Your task to perform on an android device: change the upload size in google photos Image 0: 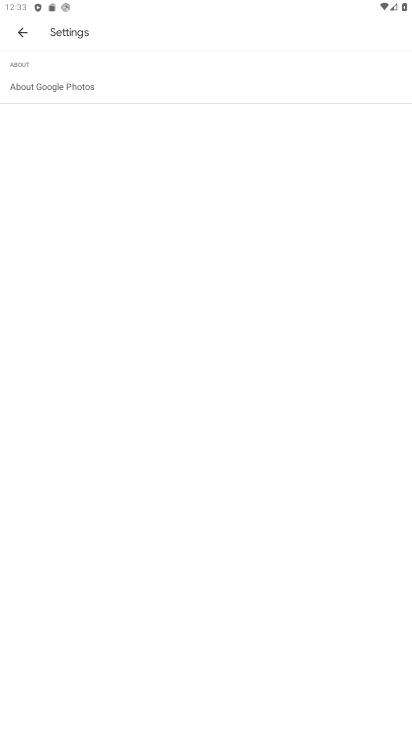
Step 0: press home button
Your task to perform on an android device: change the upload size in google photos Image 1: 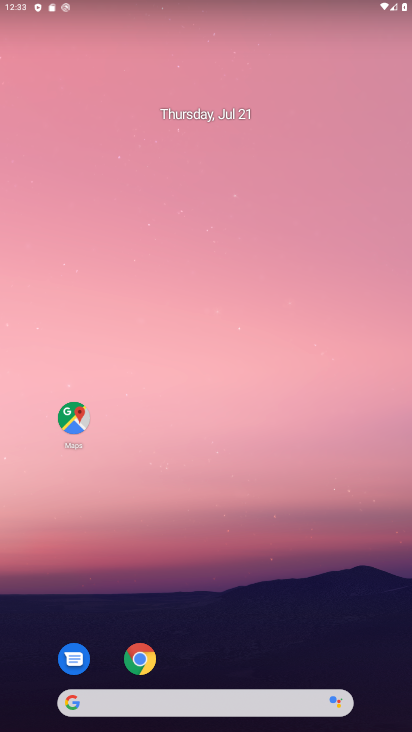
Step 1: drag from (187, 701) to (283, 82)
Your task to perform on an android device: change the upload size in google photos Image 2: 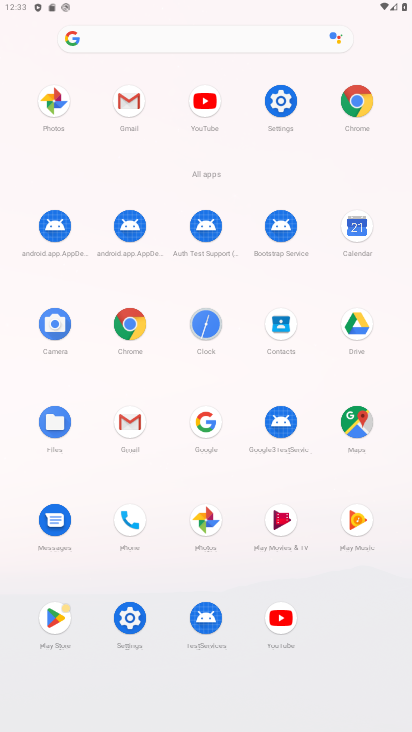
Step 2: click (54, 101)
Your task to perform on an android device: change the upload size in google photos Image 3: 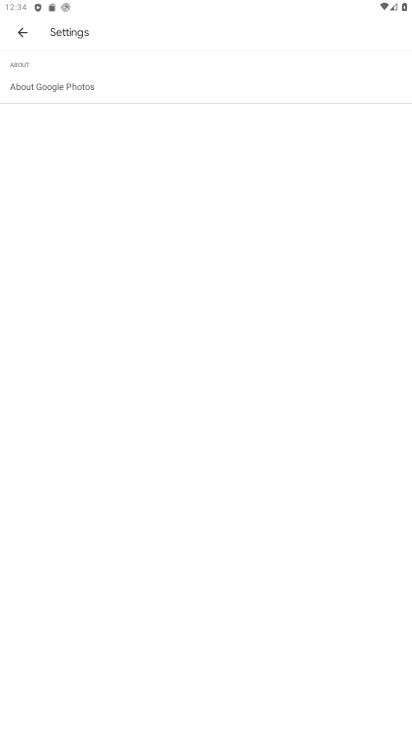
Step 3: press back button
Your task to perform on an android device: change the upload size in google photos Image 4: 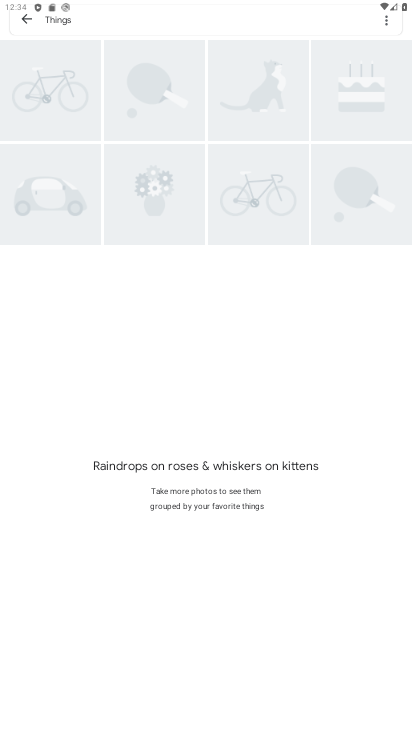
Step 4: press back button
Your task to perform on an android device: change the upload size in google photos Image 5: 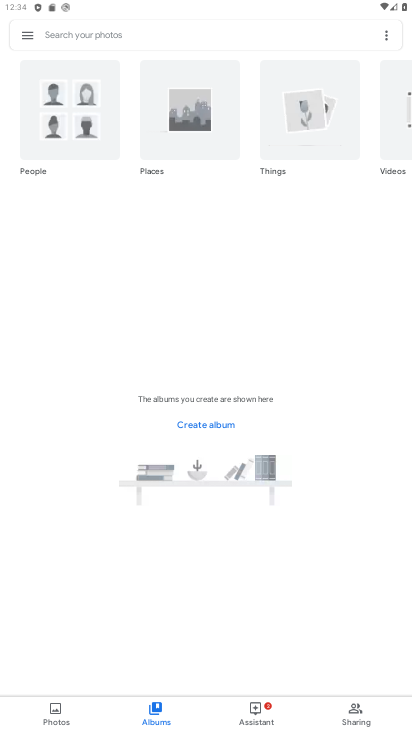
Step 5: click (29, 37)
Your task to perform on an android device: change the upload size in google photos Image 6: 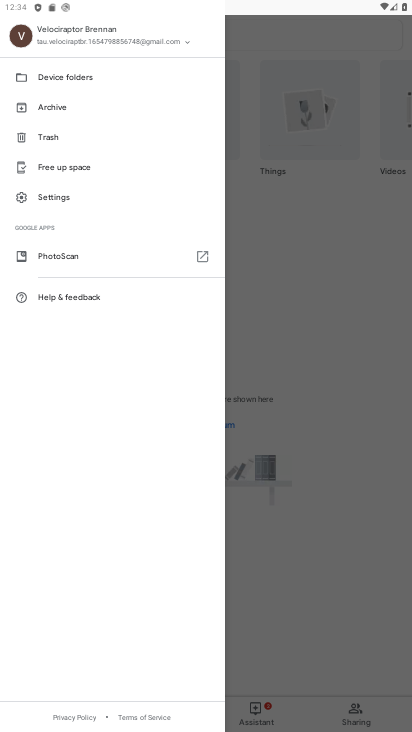
Step 6: click (54, 196)
Your task to perform on an android device: change the upload size in google photos Image 7: 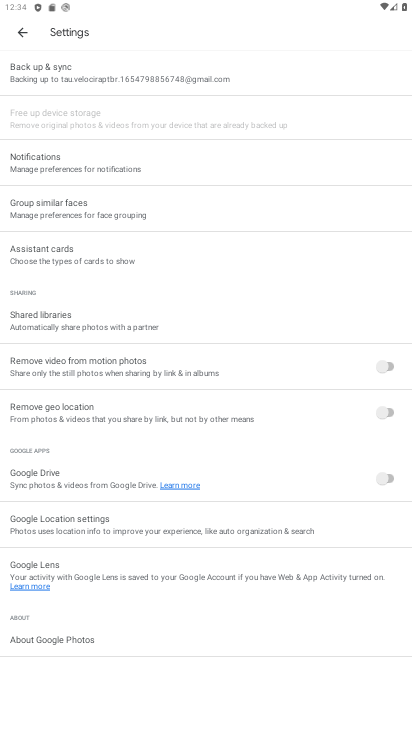
Step 7: click (96, 81)
Your task to perform on an android device: change the upload size in google photos Image 8: 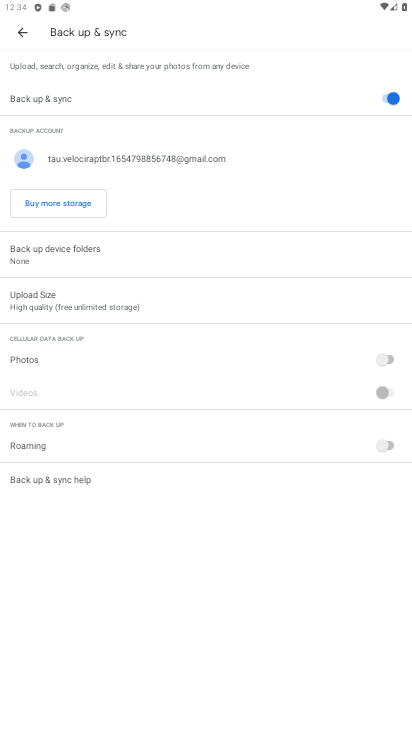
Step 8: click (128, 306)
Your task to perform on an android device: change the upload size in google photos Image 9: 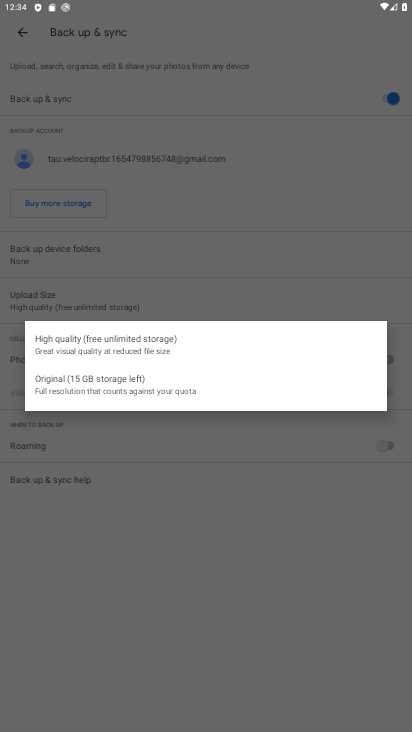
Step 9: click (106, 379)
Your task to perform on an android device: change the upload size in google photos Image 10: 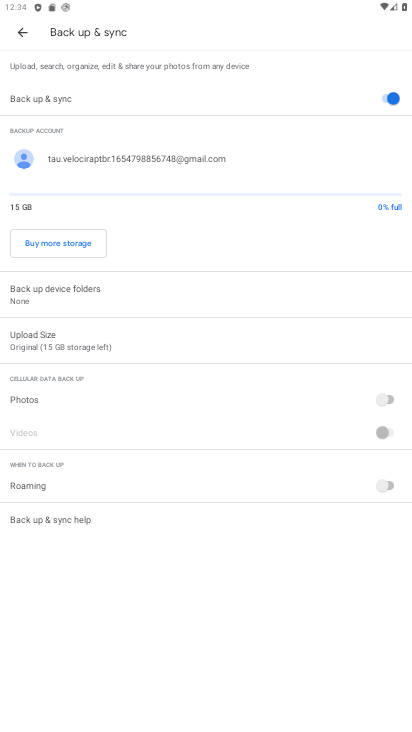
Step 10: task complete